Your task to perform on an android device: move a message to another label in the gmail app Image 0: 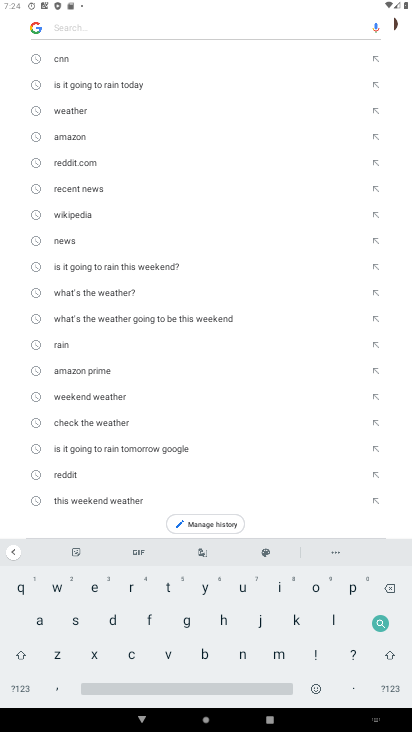
Step 0: press home button
Your task to perform on an android device: move a message to another label in the gmail app Image 1: 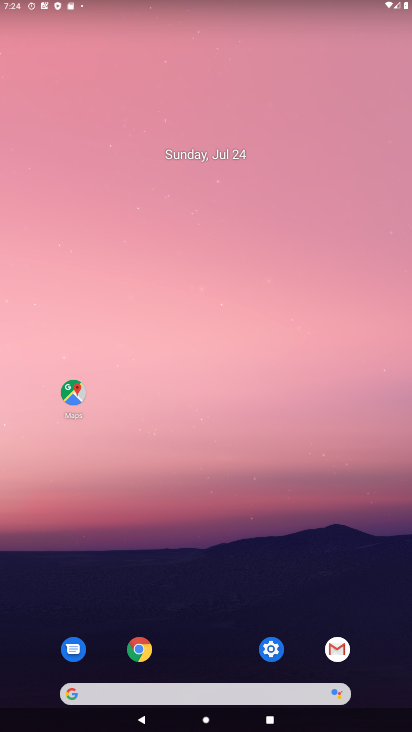
Step 1: click (338, 645)
Your task to perform on an android device: move a message to another label in the gmail app Image 2: 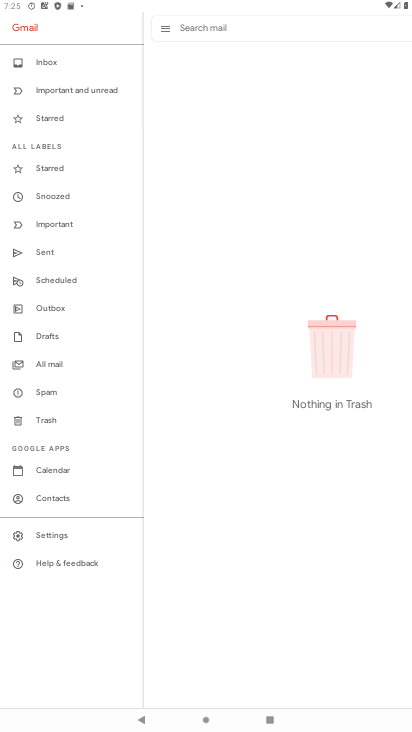
Step 2: click (47, 534)
Your task to perform on an android device: move a message to another label in the gmail app Image 3: 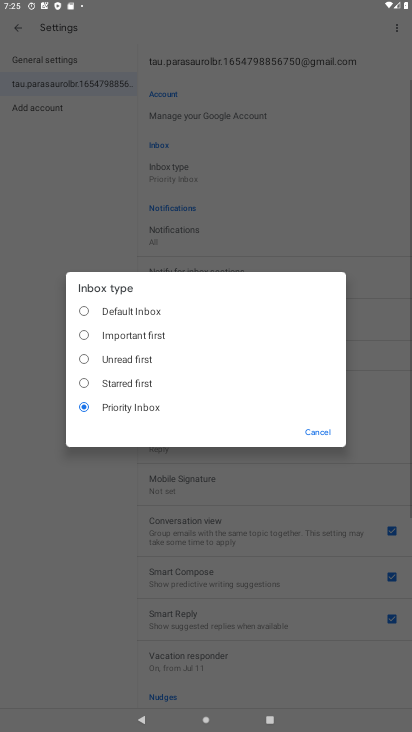
Step 3: click (68, 241)
Your task to perform on an android device: move a message to another label in the gmail app Image 4: 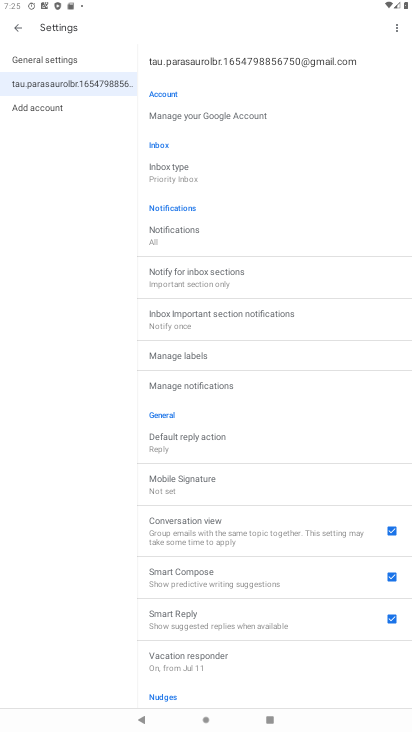
Step 4: click (231, 351)
Your task to perform on an android device: move a message to another label in the gmail app Image 5: 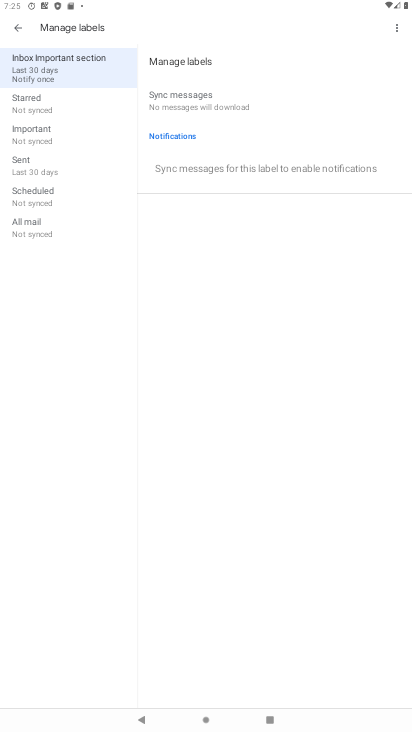
Step 5: click (38, 145)
Your task to perform on an android device: move a message to another label in the gmail app Image 6: 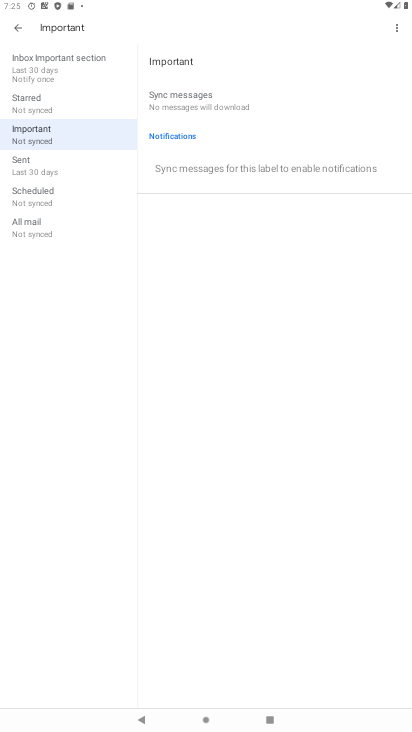
Step 6: task complete